Your task to perform on an android device: When is my next appointment? Image 0: 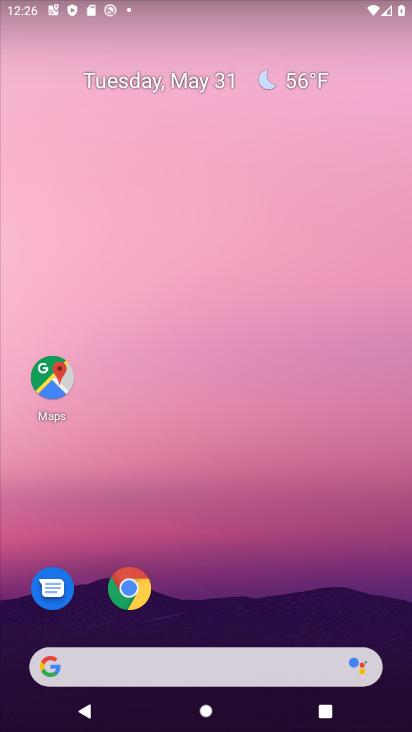
Step 0: drag from (218, 617) to (169, 5)
Your task to perform on an android device: When is my next appointment? Image 1: 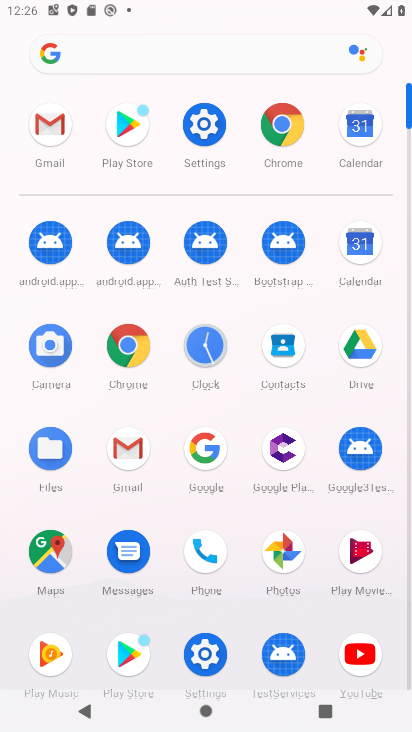
Step 1: click (347, 246)
Your task to perform on an android device: When is my next appointment? Image 2: 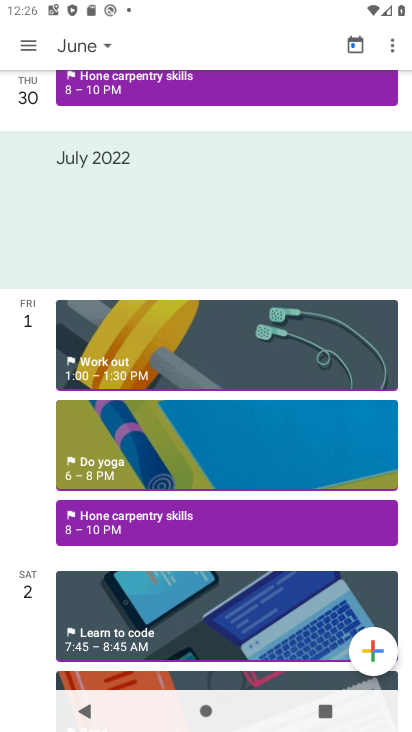
Step 2: task complete